Your task to perform on an android device: turn on javascript in the chrome app Image 0: 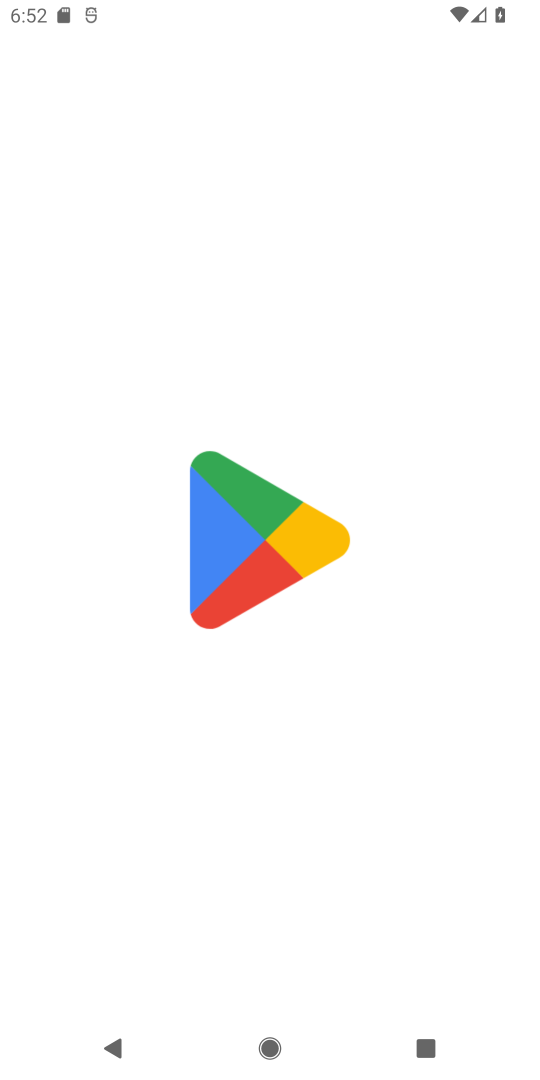
Step 0: press home button
Your task to perform on an android device: turn on javascript in the chrome app Image 1: 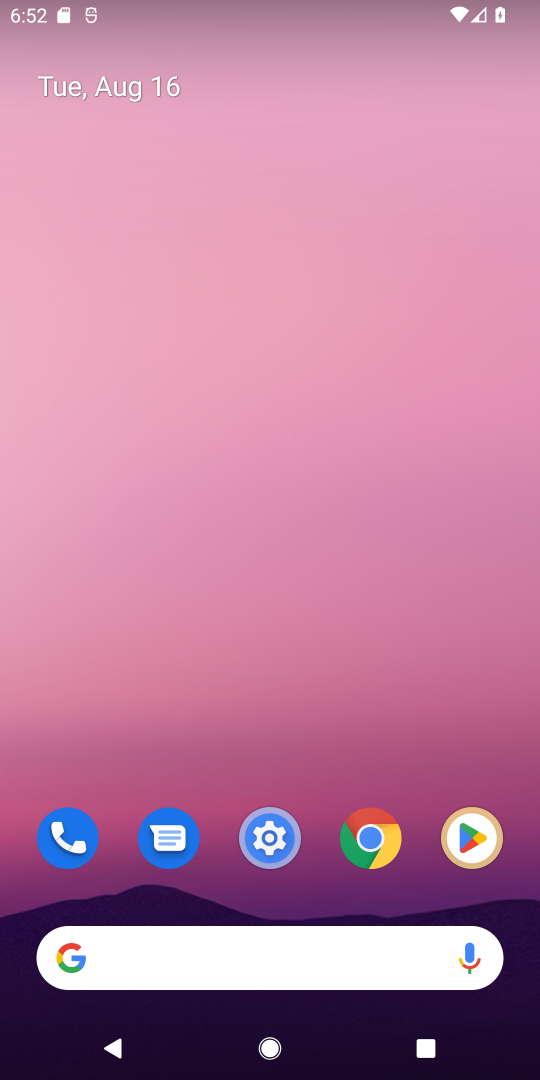
Step 1: drag from (317, 895) to (311, 134)
Your task to perform on an android device: turn on javascript in the chrome app Image 2: 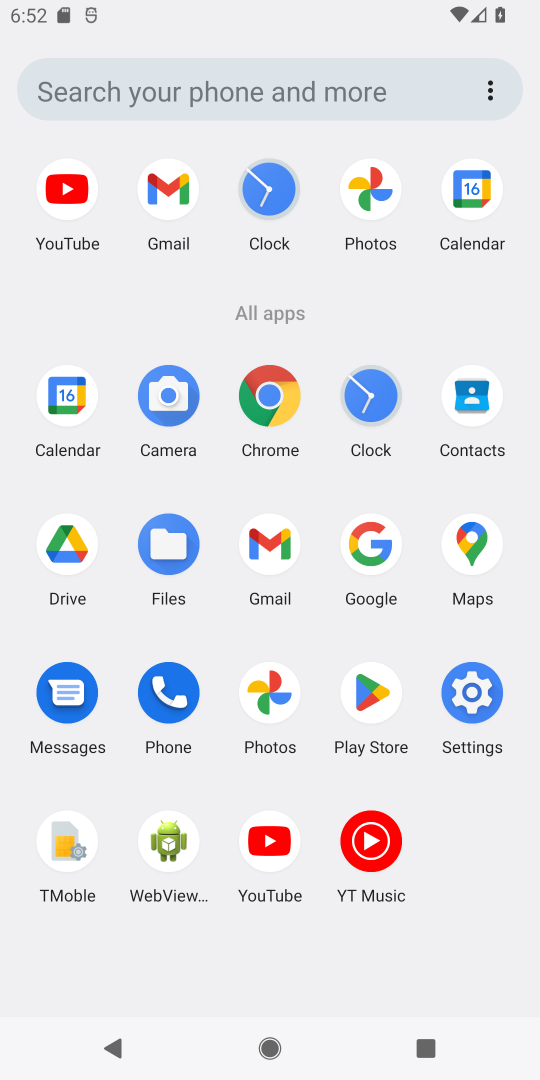
Step 2: click (263, 388)
Your task to perform on an android device: turn on javascript in the chrome app Image 3: 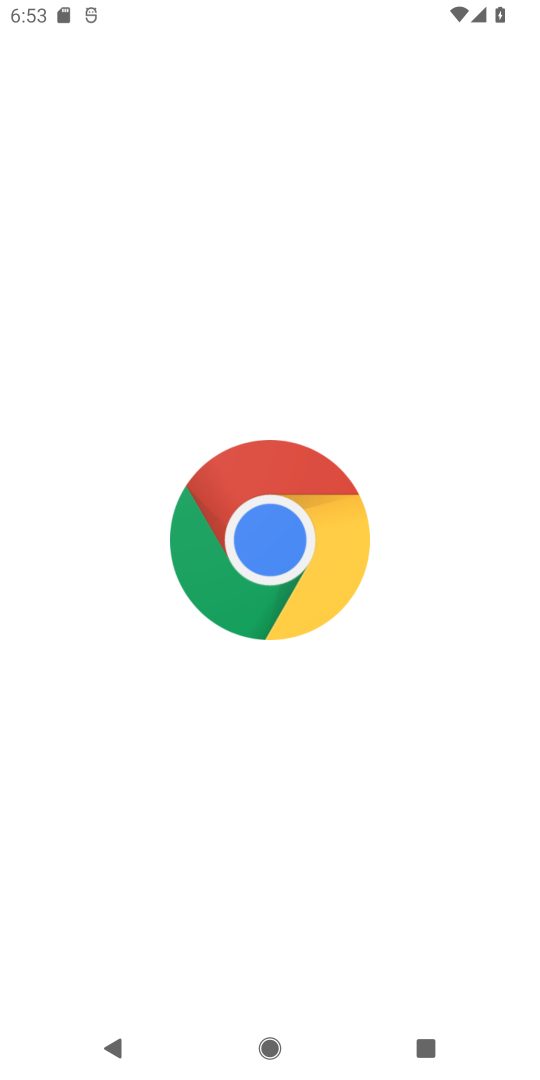
Step 3: drag from (335, 720) to (368, 77)
Your task to perform on an android device: turn on javascript in the chrome app Image 4: 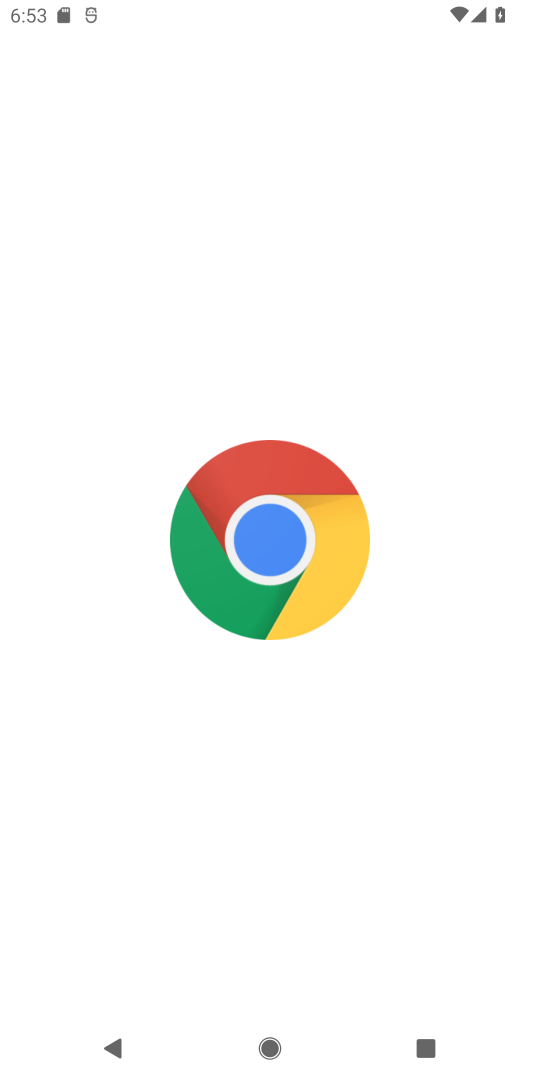
Step 4: drag from (178, 666) to (221, 104)
Your task to perform on an android device: turn on javascript in the chrome app Image 5: 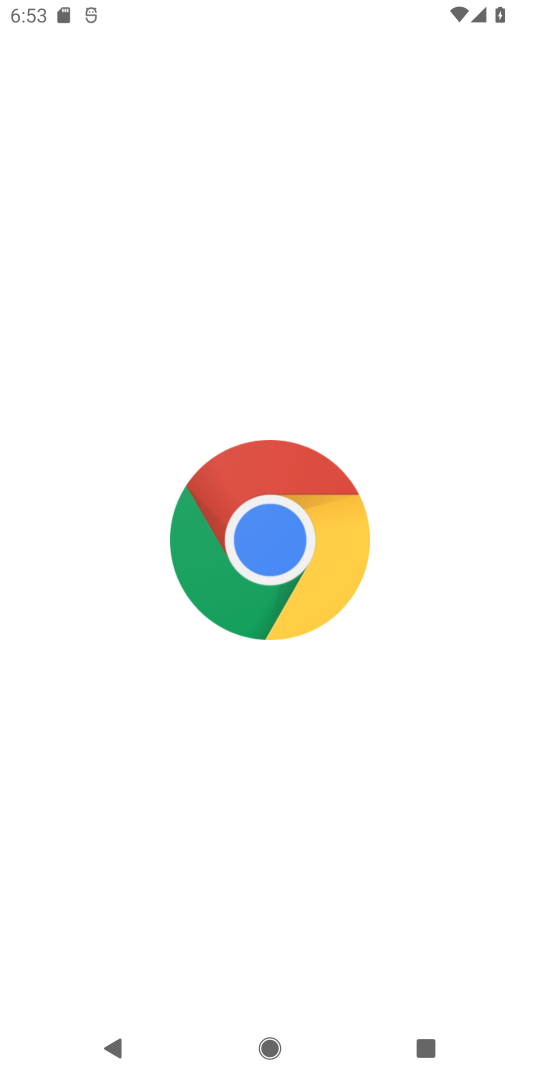
Step 5: drag from (248, 748) to (286, 110)
Your task to perform on an android device: turn on javascript in the chrome app Image 6: 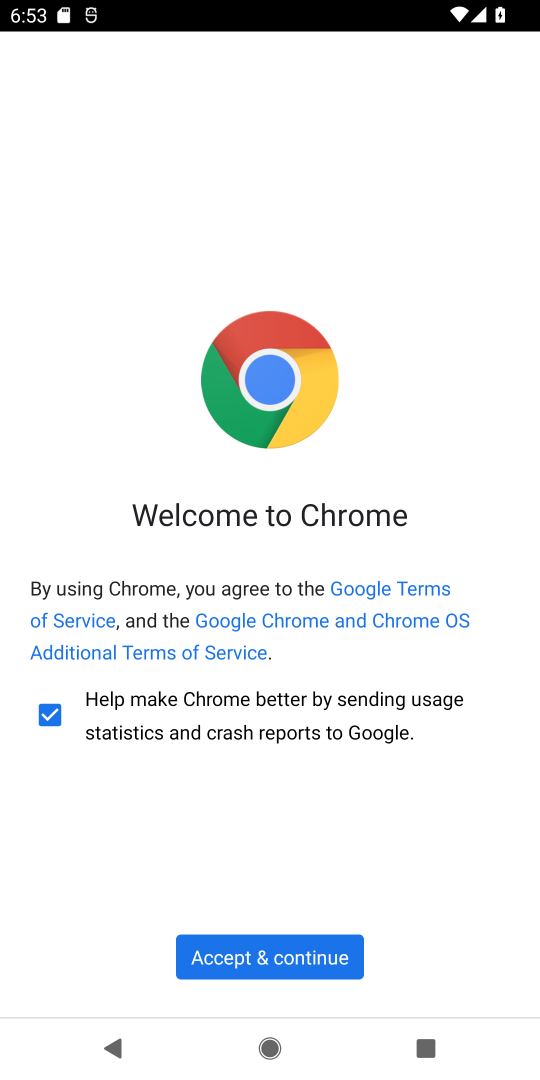
Step 6: click (259, 949)
Your task to perform on an android device: turn on javascript in the chrome app Image 7: 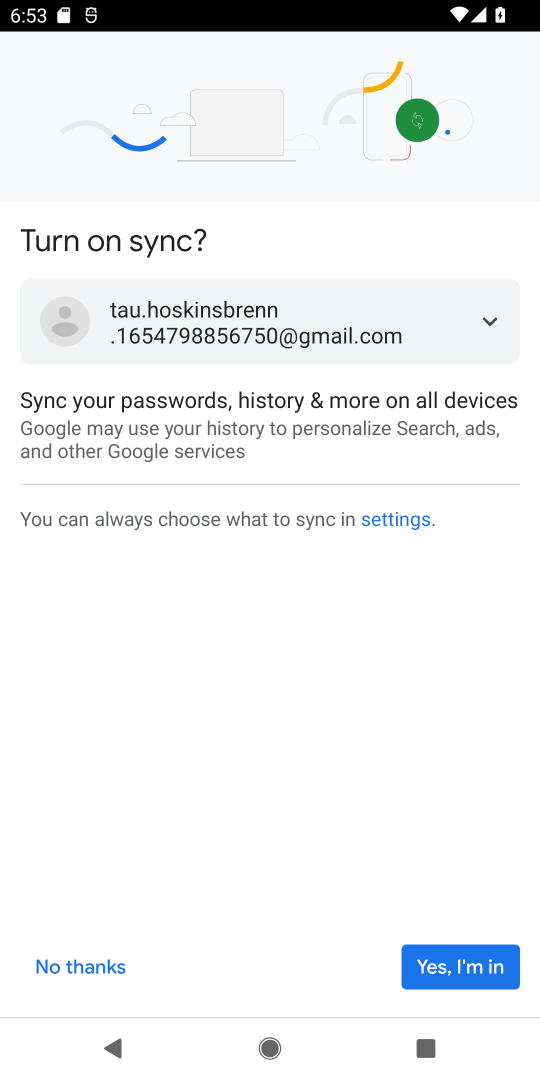
Step 7: click (458, 966)
Your task to perform on an android device: turn on javascript in the chrome app Image 8: 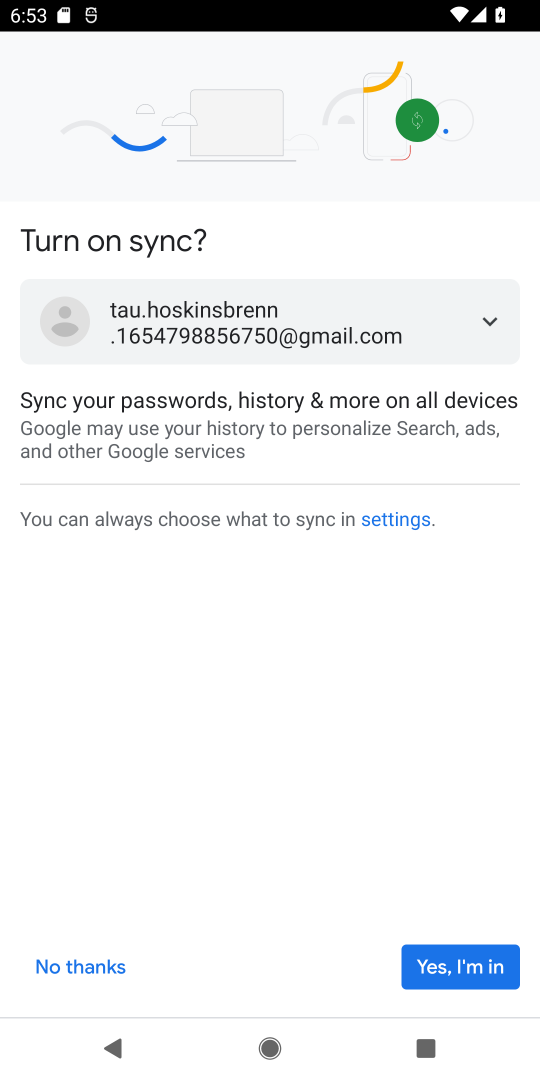
Step 8: click (462, 965)
Your task to perform on an android device: turn on javascript in the chrome app Image 9: 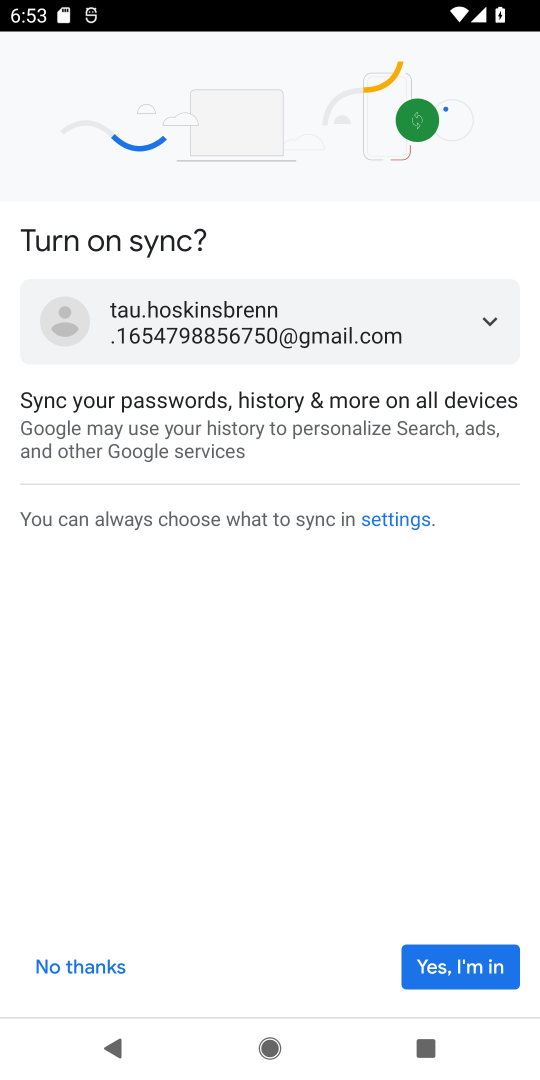
Step 9: click (454, 965)
Your task to perform on an android device: turn on javascript in the chrome app Image 10: 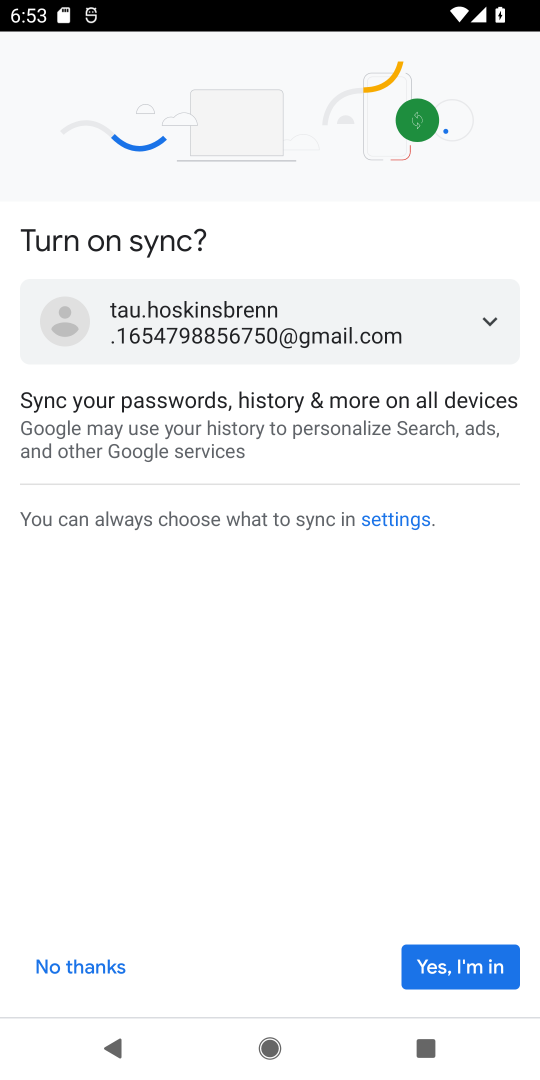
Step 10: click (454, 963)
Your task to perform on an android device: turn on javascript in the chrome app Image 11: 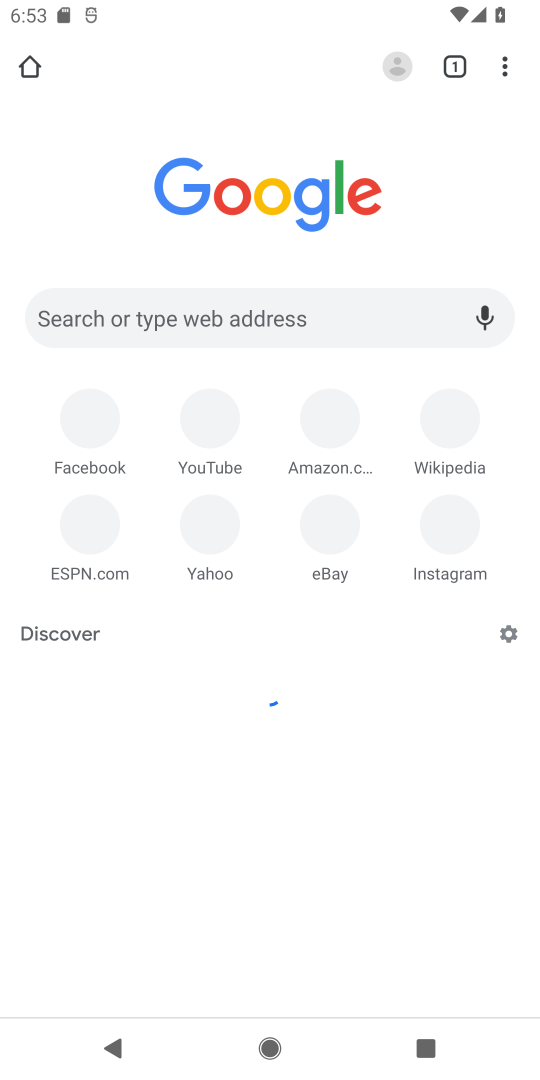
Step 11: click (503, 62)
Your task to perform on an android device: turn on javascript in the chrome app Image 12: 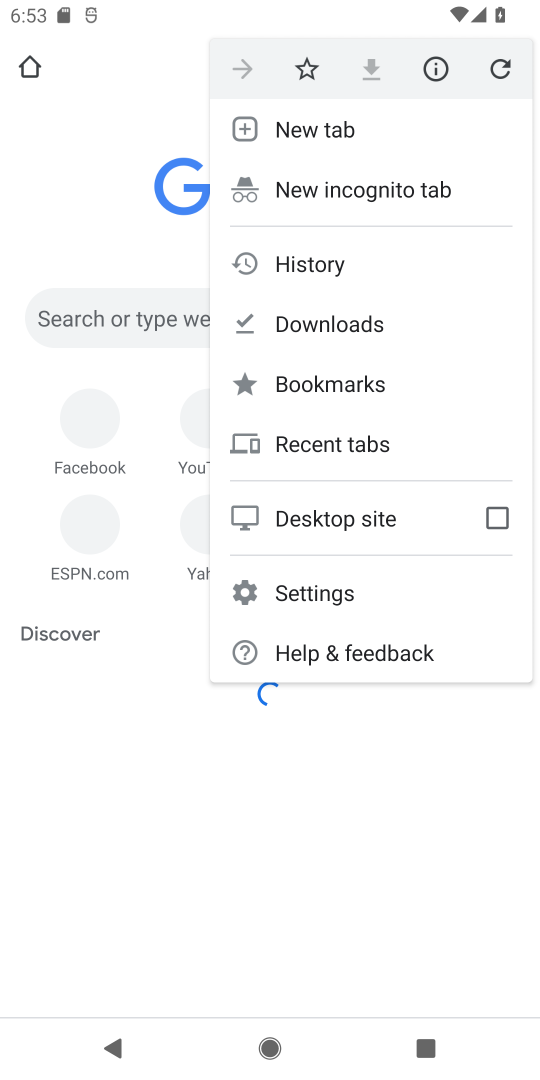
Step 12: click (361, 586)
Your task to perform on an android device: turn on javascript in the chrome app Image 13: 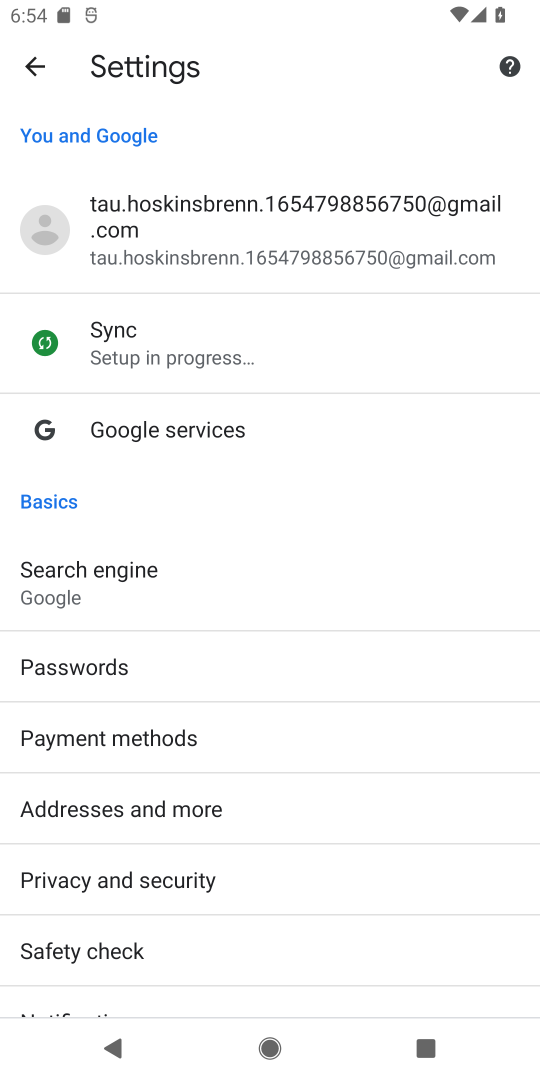
Step 13: drag from (280, 905) to (327, 163)
Your task to perform on an android device: turn on javascript in the chrome app Image 14: 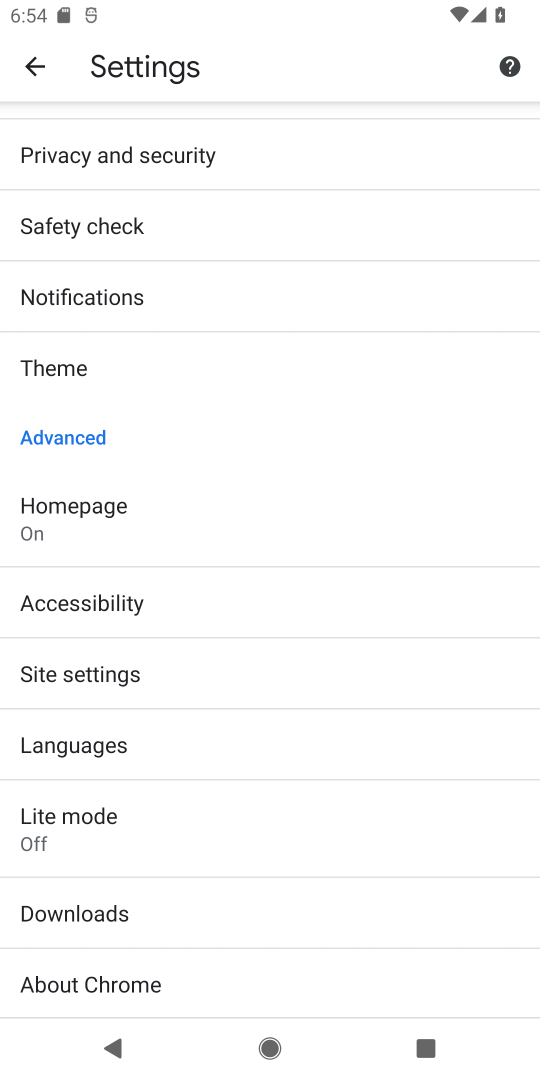
Step 14: click (168, 677)
Your task to perform on an android device: turn on javascript in the chrome app Image 15: 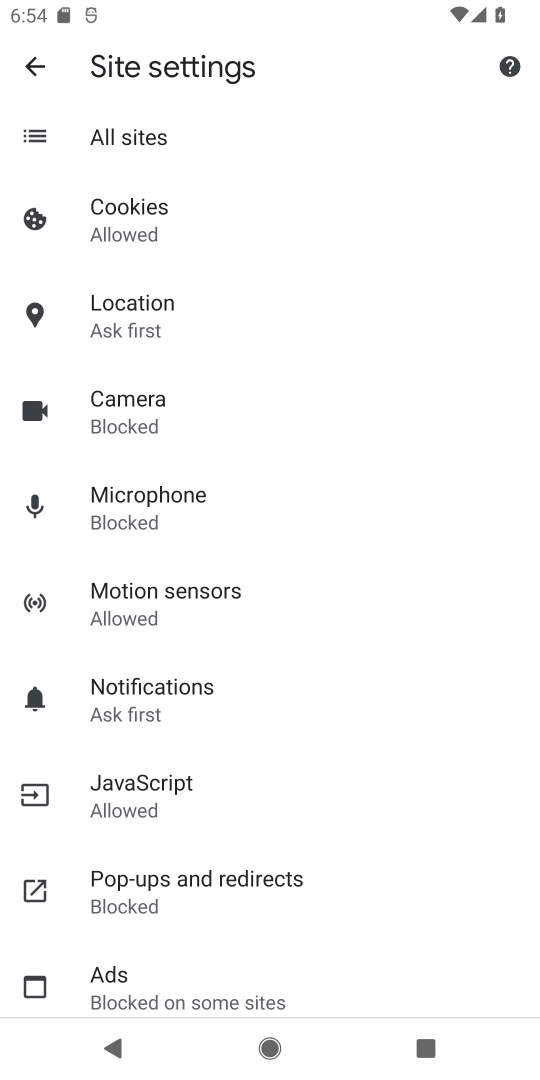
Step 15: click (212, 787)
Your task to perform on an android device: turn on javascript in the chrome app Image 16: 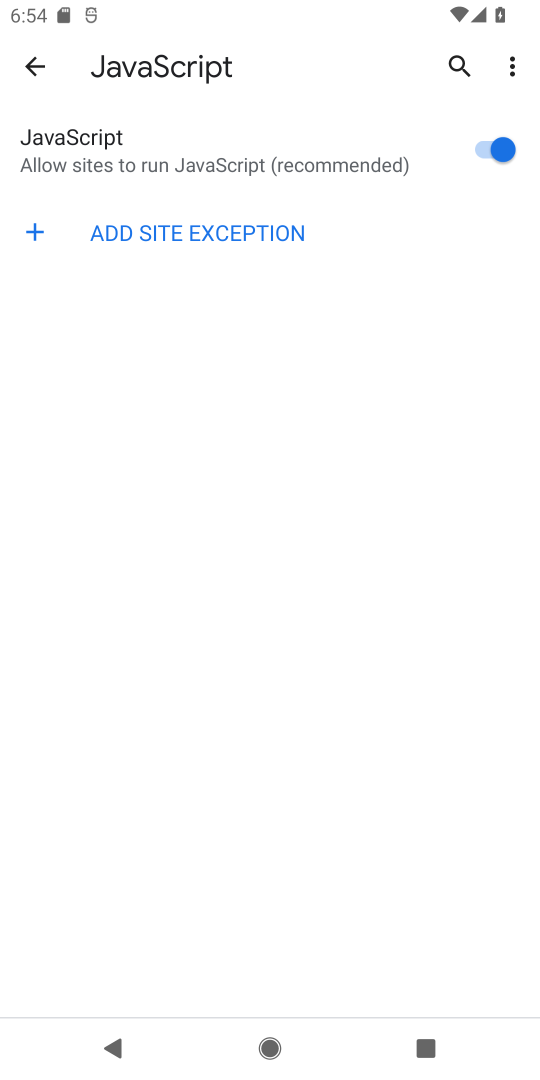
Step 16: task complete